Your task to perform on an android device: Go to Amazon Image 0: 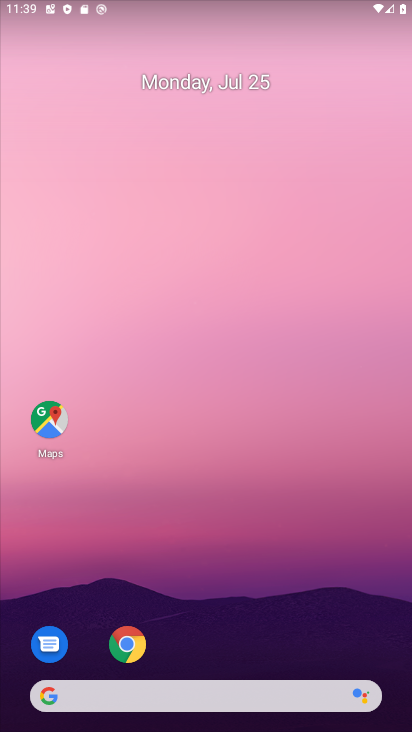
Step 0: drag from (241, 655) to (176, 64)
Your task to perform on an android device: Go to Amazon Image 1: 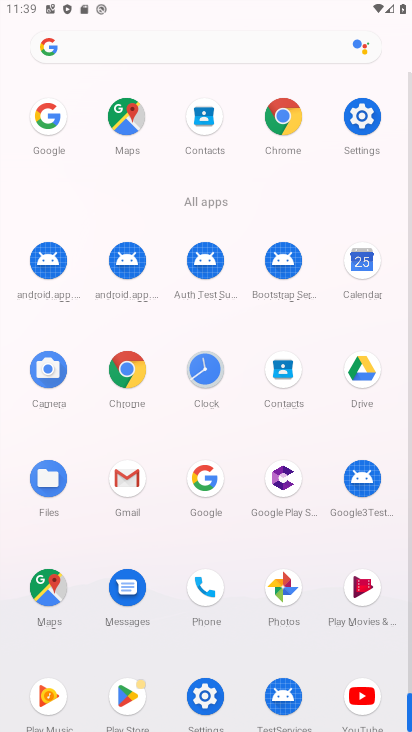
Step 1: click (278, 126)
Your task to perform on an android device: Go to Amazon Image 2: 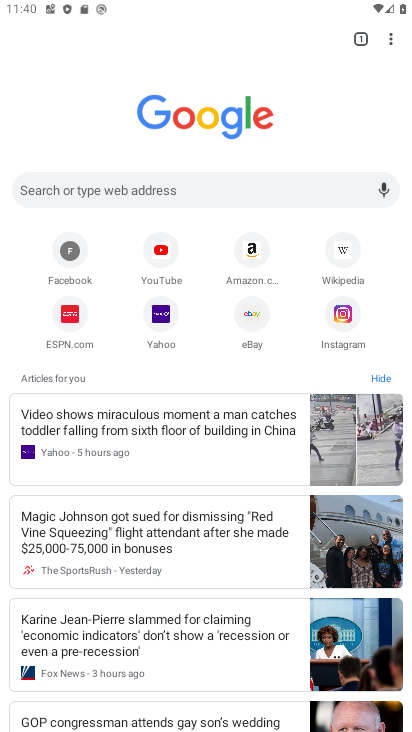
Step 2: click (255, 274)
Your task to perform on an android device: Go to Amazon Image 3: 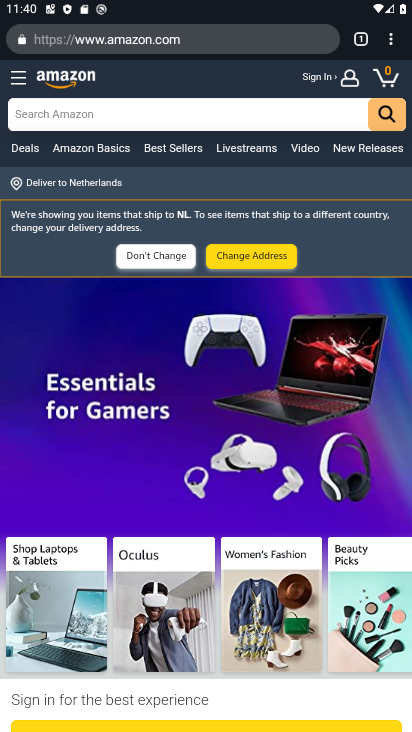
Step 3: task complete